Your task to perform on an android device: turn on sleep mode Image 0: 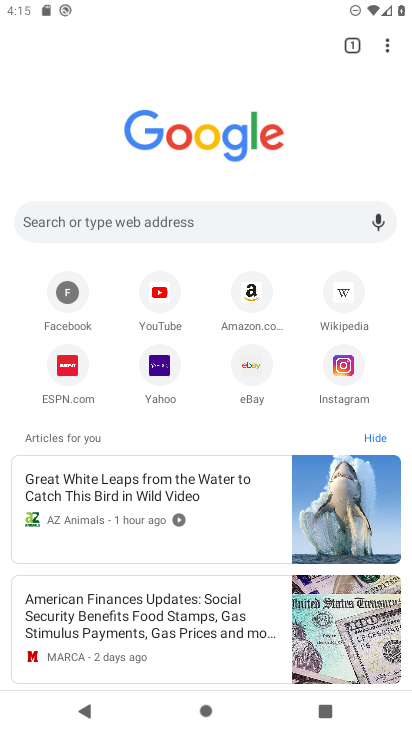
Step 0: press home button
Your task to perform on an android device: turn on sleep mode Image 1: 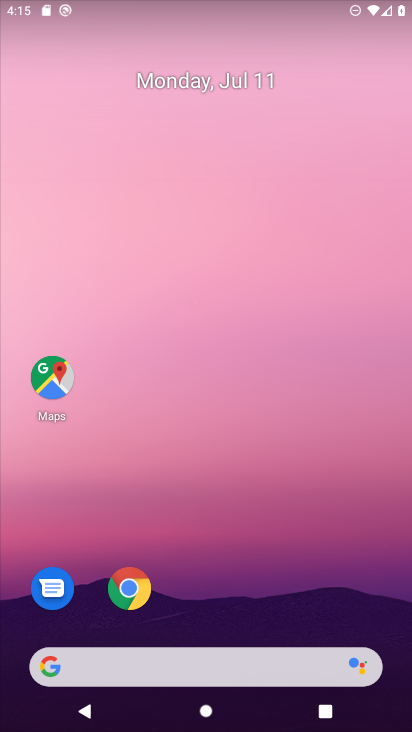
Step 1: drag from (253, 593) to (240, 61)
Your task to perform on an android device: turn on sleep mode Image 2: 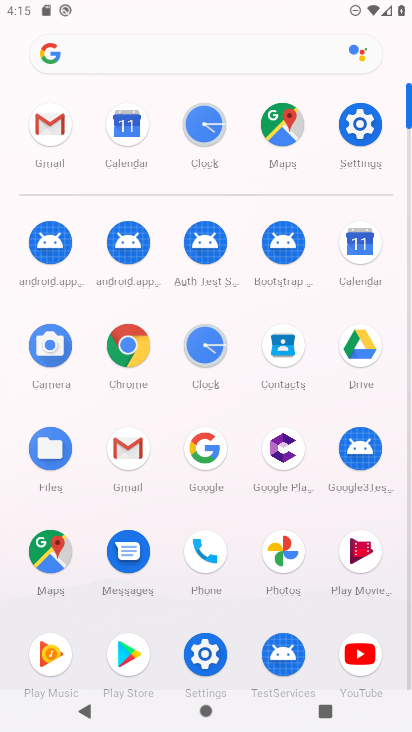
Step 2: click (361, 123)
Your task to perform on an android device: turn on sleep mode Image 3: 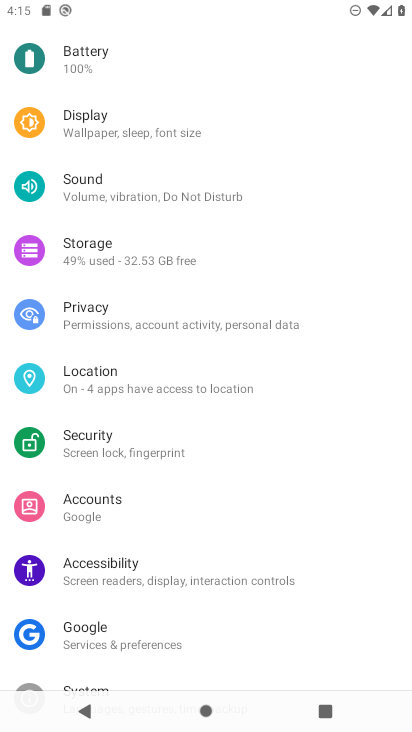
Step 3: click (138, 121)
Your task to perform on an android device: turn on sleep mode Image 4: 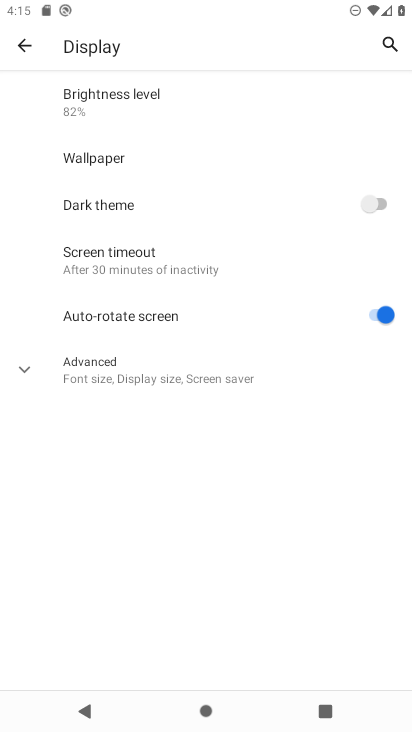
Step 4: click (149, 375)
Your task to perform on an android device: turn on sleep mode Image 5: 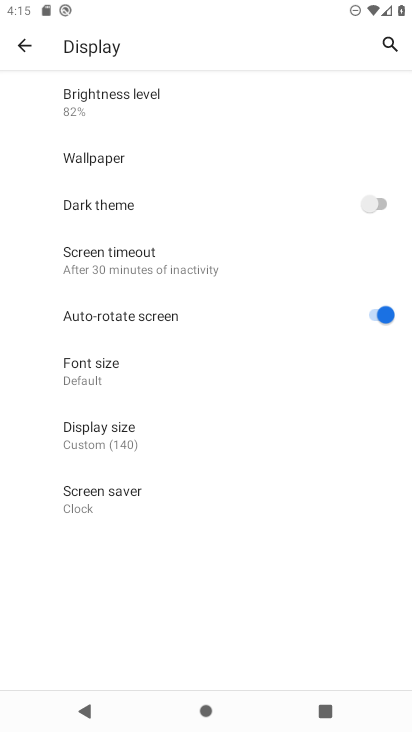
Step 5: task complete